Your task to perform on an android device: turn on wifi Image 0: 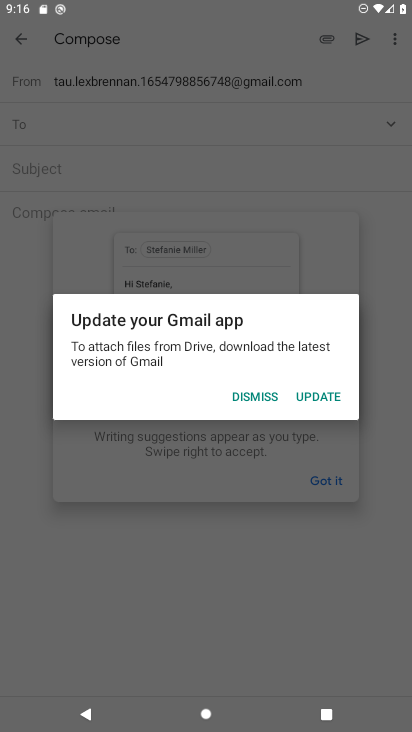
Step 0: press home button
Your task to perform on an android device: turn on wifi Image 1: 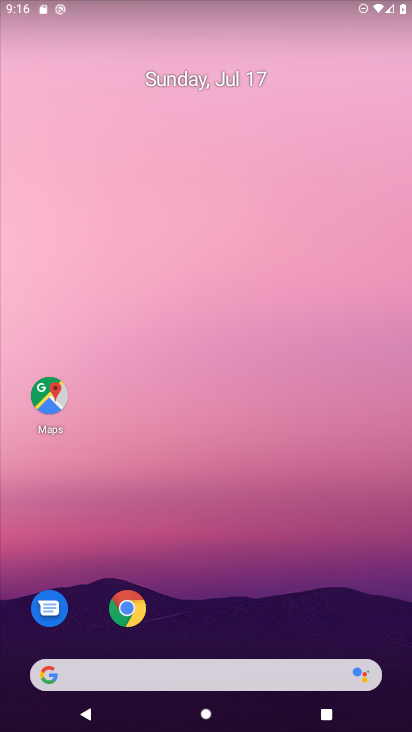
Step 1: drag from (219, 683) to (239, 163)
Your task to perform on an android device: turn on wifi Image 2: 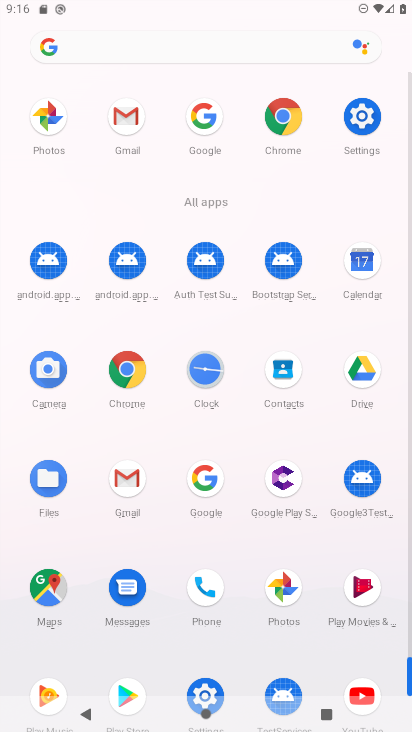
Step 2: click (363, 120)
Your task to perform on an android device: turn on wifi Image 3: 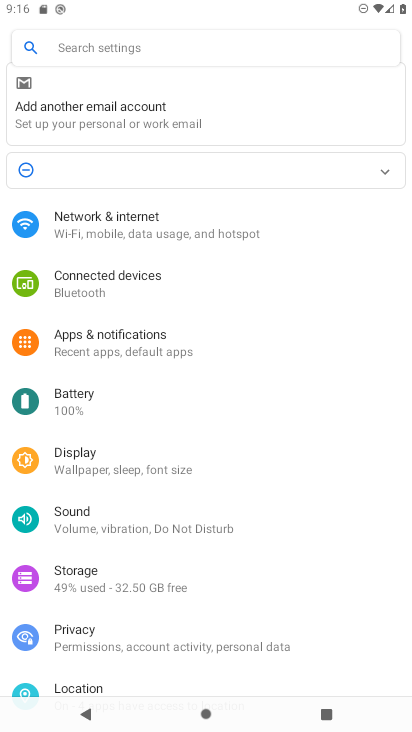
Step 3: click (154, 227)
Your task to perform on an android device: turn on wifi Image 4: 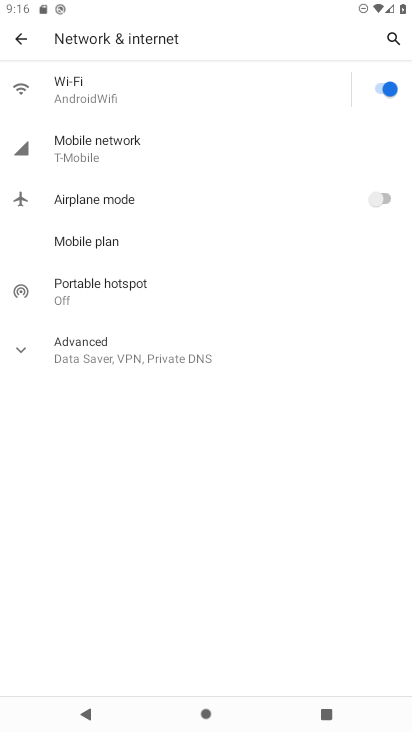
Step 4: task complete